Your task to perform on an android device: manage bookmarks in the chrome app Image 0: 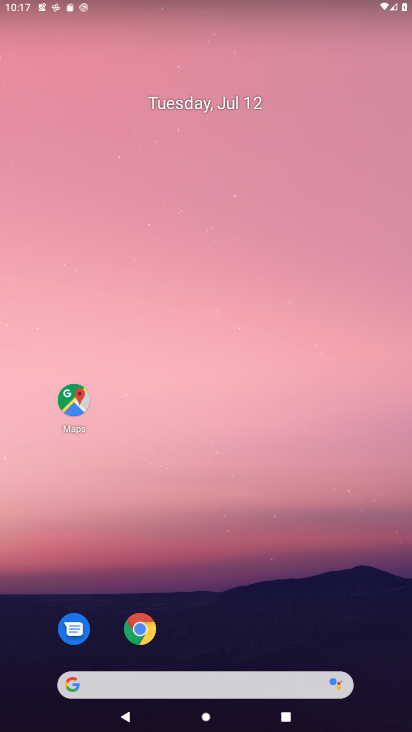
Step 0: drag from (249, 680) to (351, 122)
Your task to perform on an android device: manage bookmarks in the chrome app Image 1: 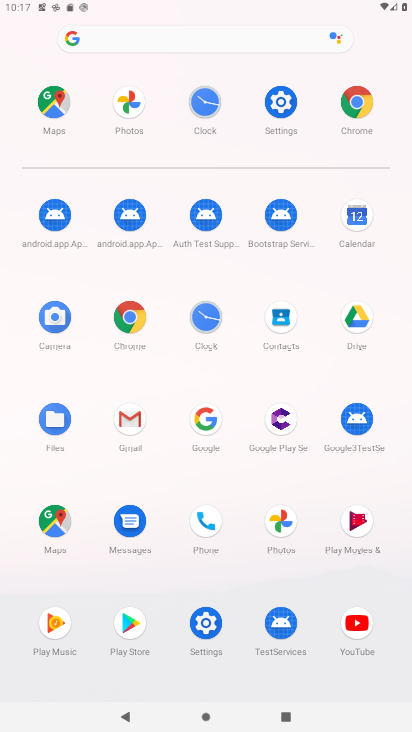
Step 1: click (126, 308)
Your task to perform on an android device: manage bookmarks in the chrome app Image 2: 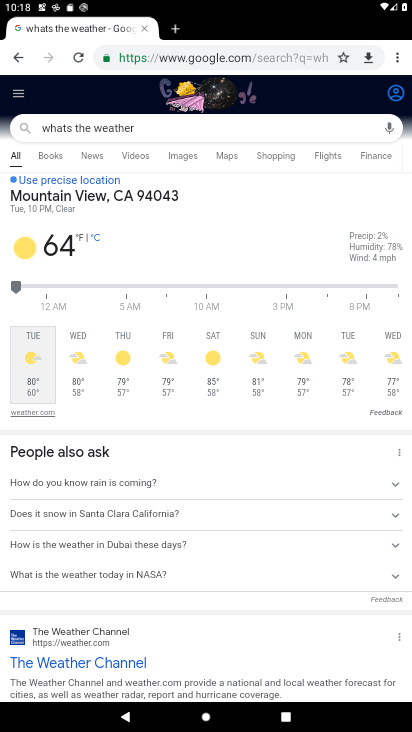
Step 2: task complete